Your task to perform on an android device: Search for Mexican restaurants on Maps Image 0: 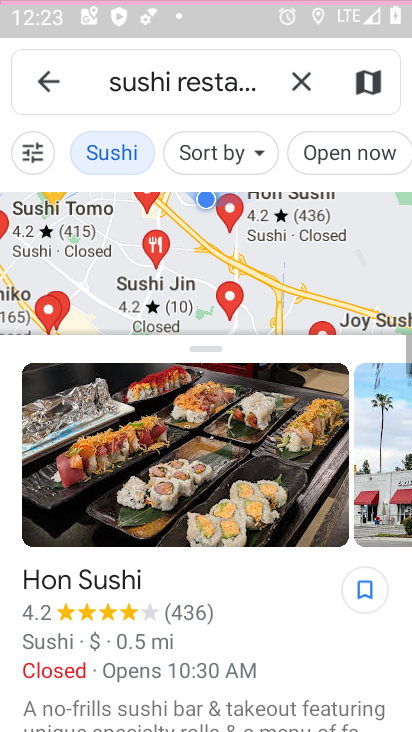
Step 0: drag from (212, 606) to (221, 205)
Your task to perform on an android device: Search for Mexican restaurants on Maps Image 1: 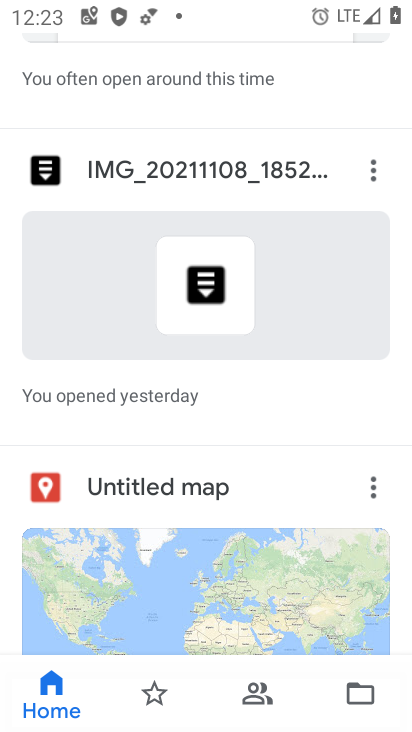
Step 1: press home button
Your task to perform on an android device: Search for Mexican restaurants on Maps Image 2: 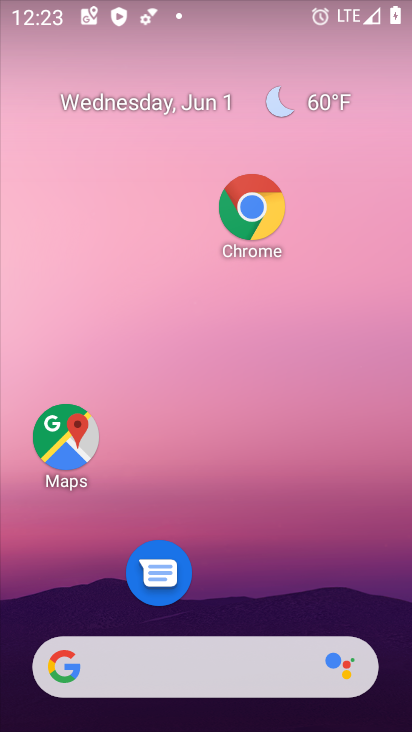
Step 2: click (82, 440)
Your task to perform on an android device: Search for Mexican restaurants on Maps Image 3: 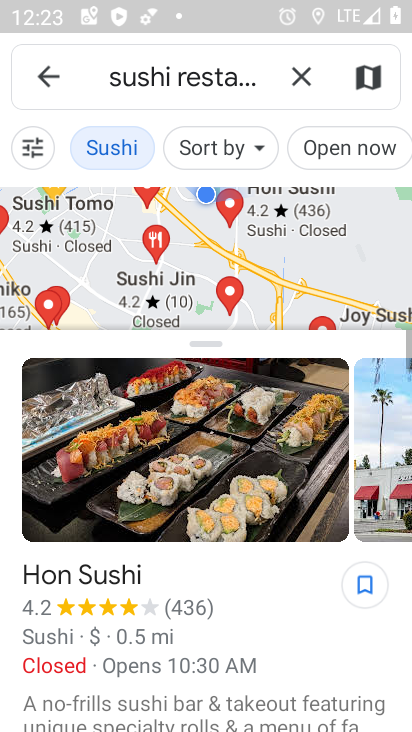
Step 3: click (306, 79)
Your task to perform on an android device: Search for Mexican restaurants on Maps Image 4: 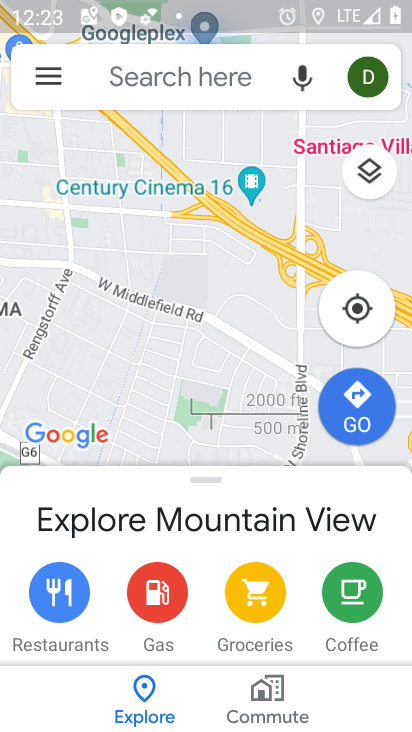
Step 4: click (221, 61)
Your task to perform on an android device: Search for Mexican restaurants on Maps Image 5: 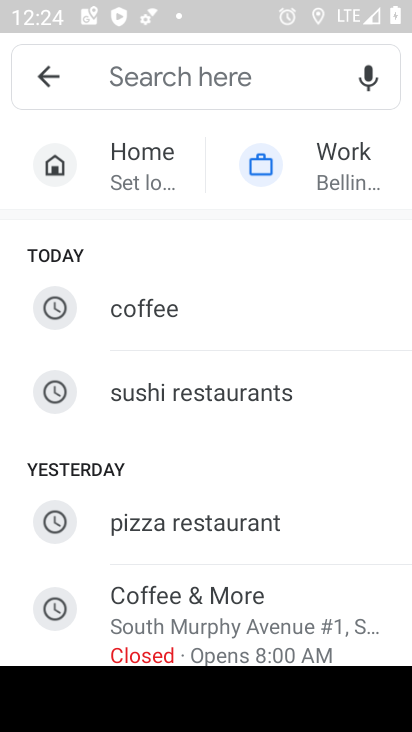
Step 5: type "Mexican restaurants"
Your task to perform on an android device: Search for Mexican restaurants on Maps Image 6: 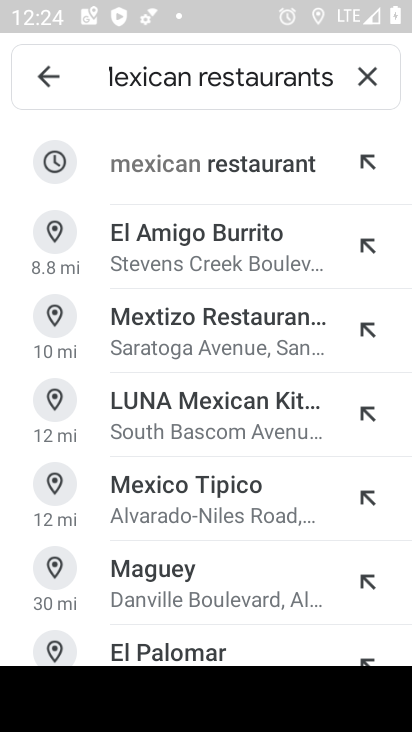
Step 6: click (233, 155)
Your task to perform on an android device: Search for Mexican restaurants on Maps Image 7: 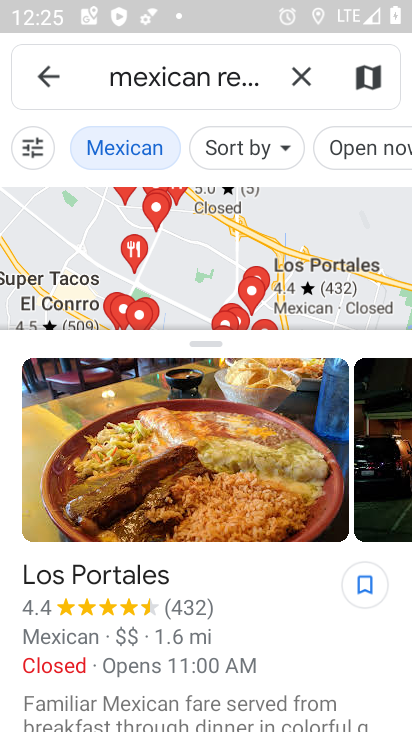
Step 7: task complete